Your task to perform on an android device: What is the news today? Image 0: 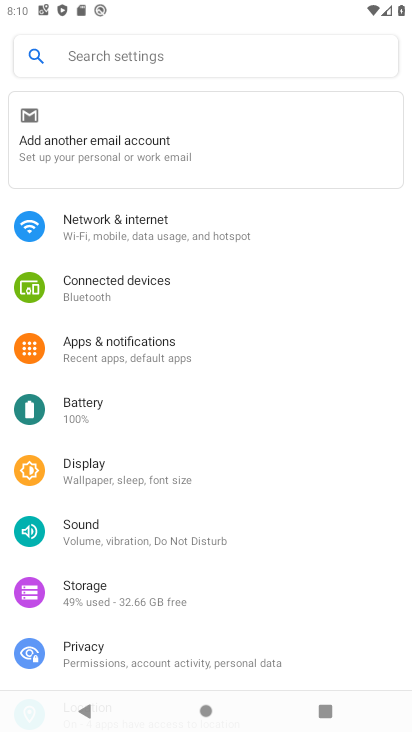
Step 0: press home button
Your task to perform on an android device: What is the news today? Image 1: 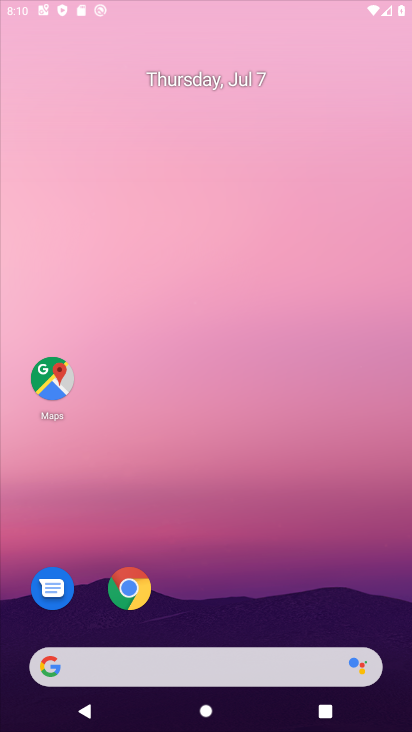
Step 1: drag from (214, 647) to (247, 136)
Your task to perform on an android device: What is the news today? Image 2: 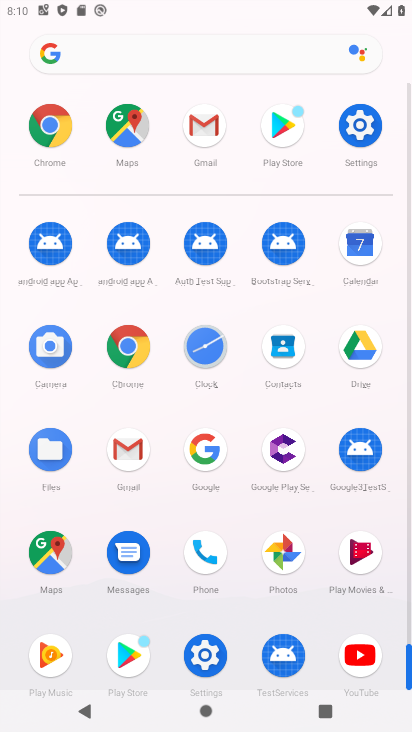
Step 2: click (157, 66)
Your task to perform on an android device: What is the news today? Image 3: 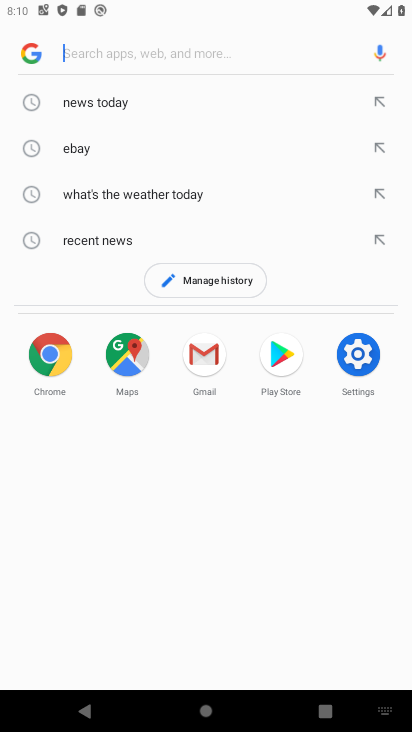
Step 3: type "news today?"
Your task to perform on an android device: What is the news today? Image 4: 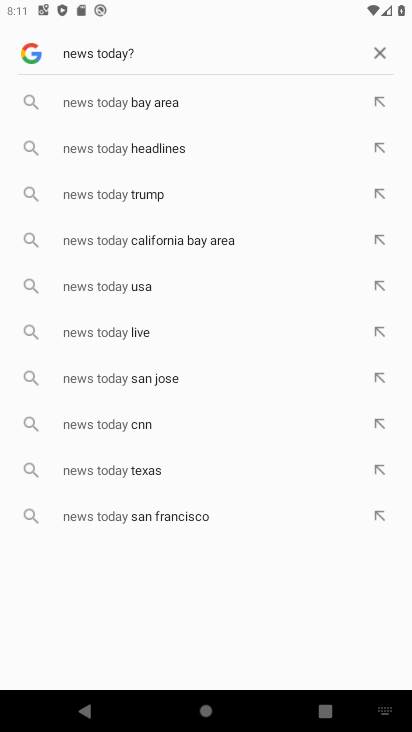
Step 4: click (136, 425)
Your task to perform on an android device: What is the news today? Image 5: 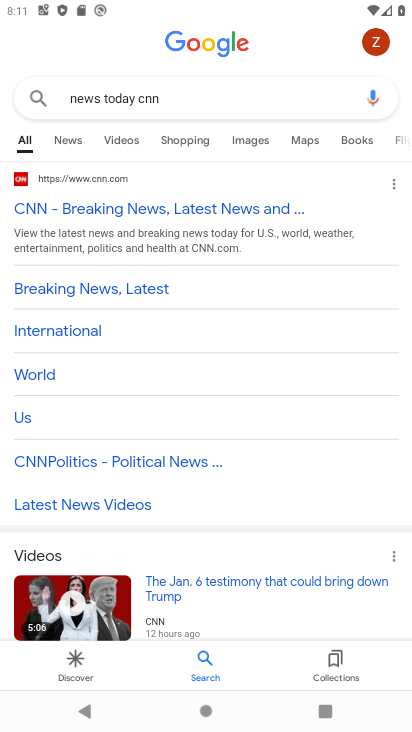
Step 5: click (124, 211)
Your task to perform on an android device: What is the news today? Image 6: 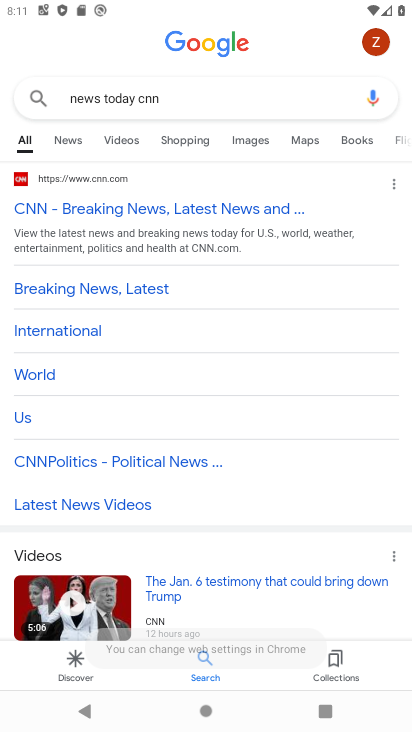
Step 6: drag from (318, 450) to (391, 235)
Your task to perform on an android device: What is the news today? Image 7: 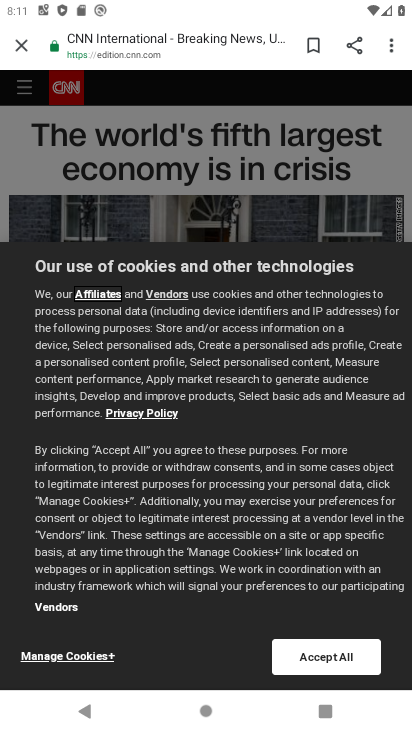
Step 7: click (24, 61)
Your task to perform on an android device: What is the news today? Image 8: 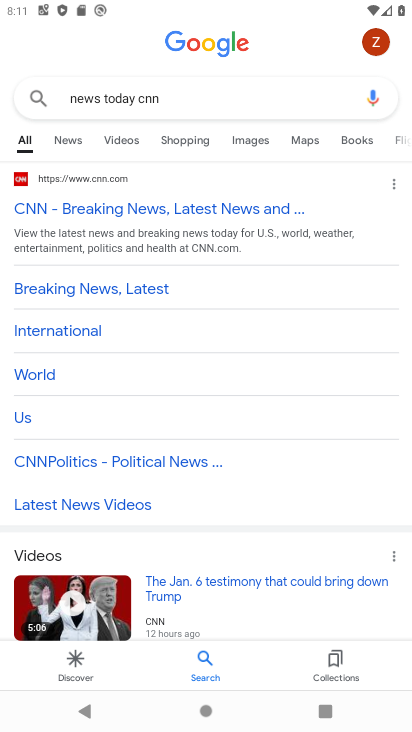
Step 8: click (261, 92)
Your task to perform on an android device: What is the news today? Image 9: 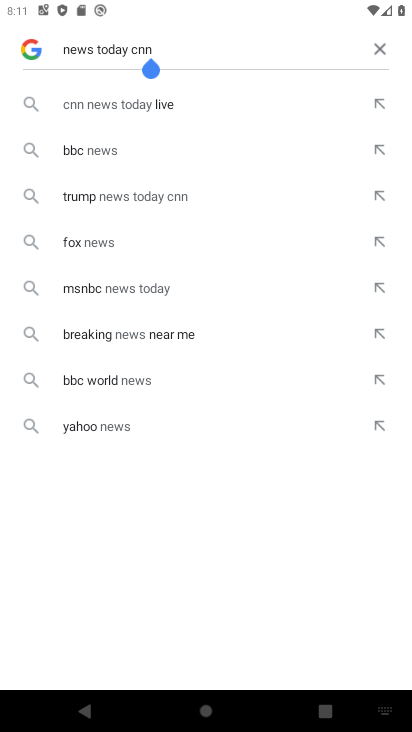
Step 9: click (386, 55)
Your task to perform on an android device: What is the news today? Image 10: 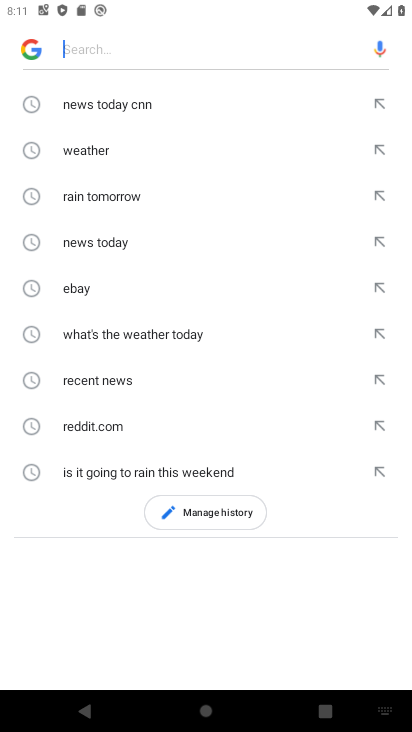
Step 10: click (161, 111)
Your task to perform on an android device: What is the news today? Image 11: 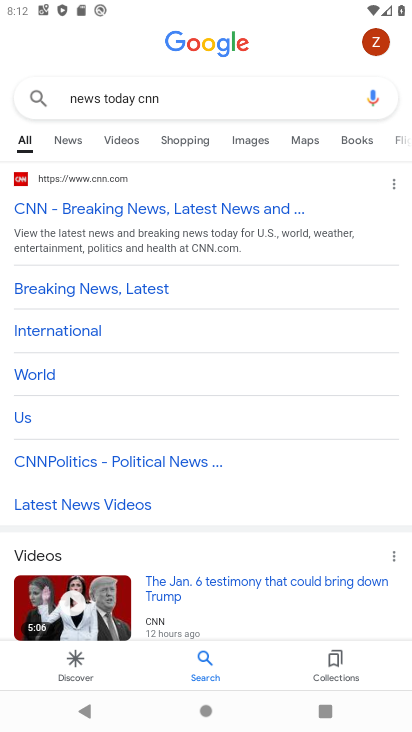
Step 11: task complete